Your task to perform on an android device: turn notification dots on Image 0: 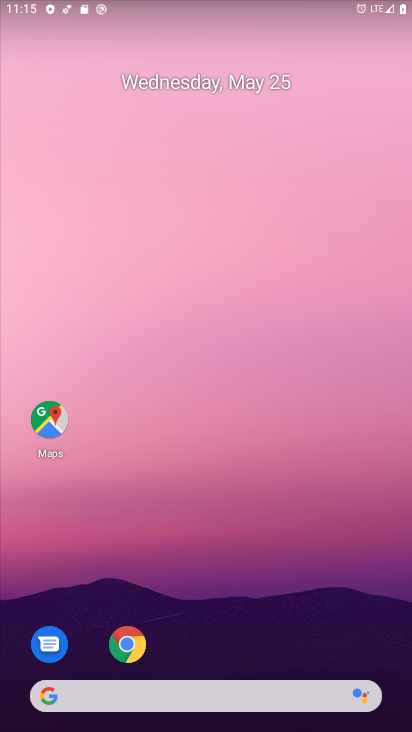
Step 0: drag from (257, 617) to (210, 122)
Your task to perform on an android device: turn notification dots on Image 1: 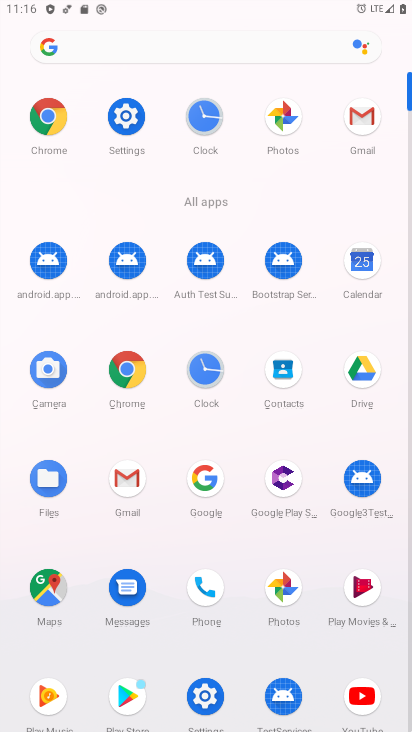
Step 1: click (206, 695)
Your task to perform on an android device: turn notification dots on Image 2: 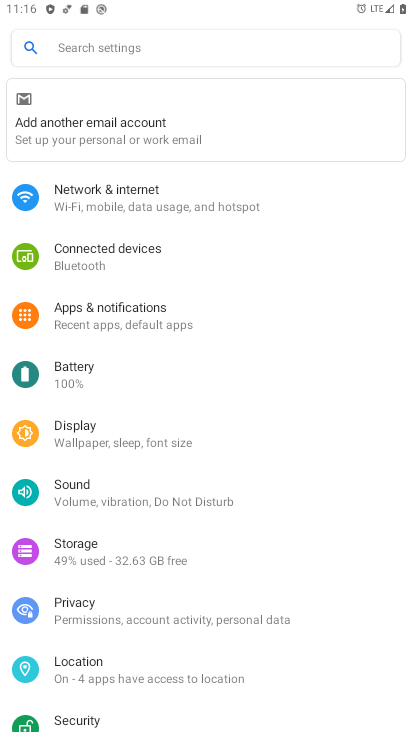
Step 2: click (130, 324)
Your task to perform on an android device: turn notification dots on Image 3: 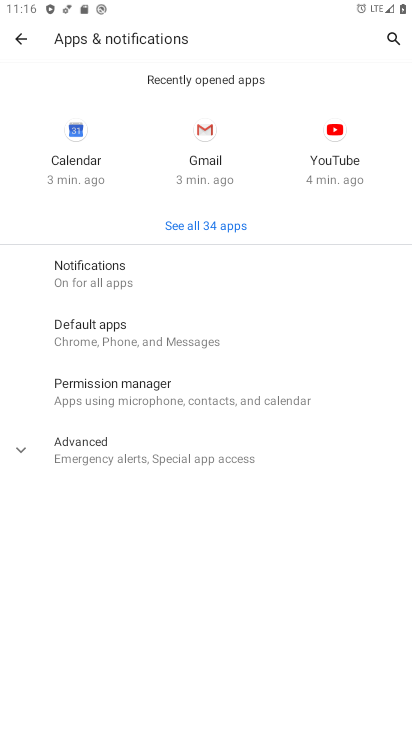
Step 3: click (107, 273)
Your task to perform on an android device: turn notification dots on Image 4: 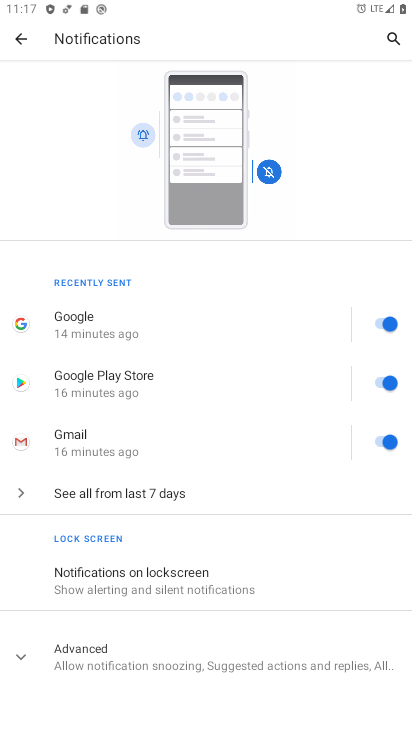
Step 4: click (151, 667)
Your task to perform on an android device: turn notification dots on Image 5: 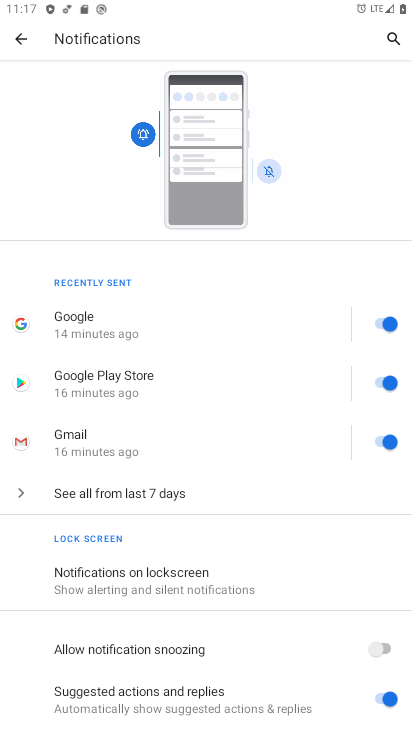
Step 5: task complete